Your task to perform on an android device: Open Reddit.com Image 0: 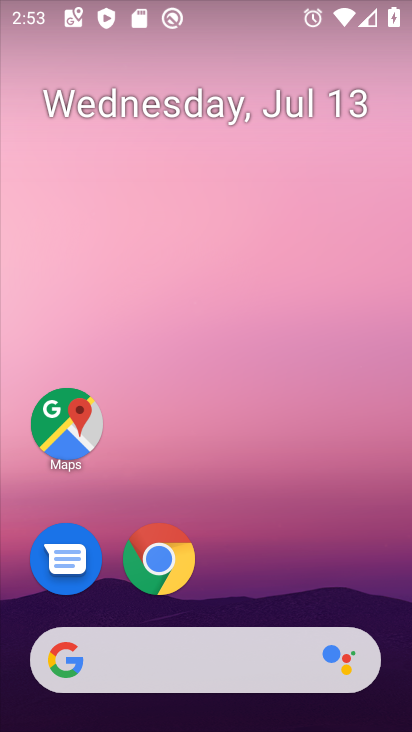
Step 0: drag from (358, 583) to (358, 165)
Your task to perform on an android device: Open Reddit.com Image 1: 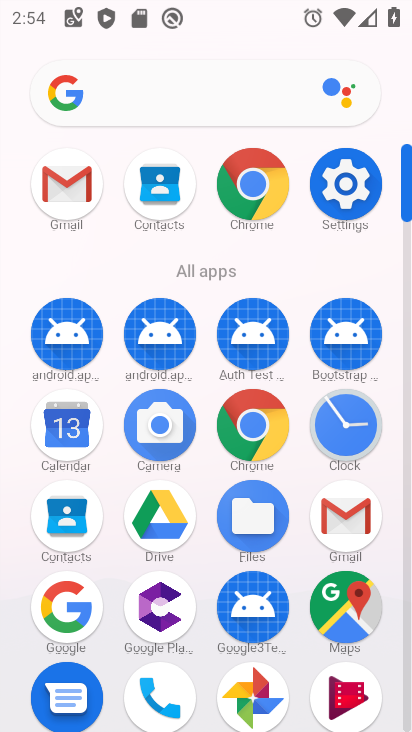
Step 1: click (251, 427)
Your task to perform on an android device: Open Reddit.com Image 2: 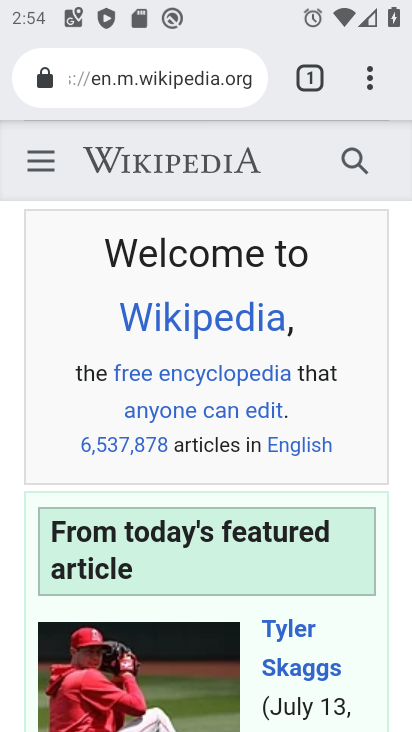
Step 2: click (177, 80)
Your task to perform on an android device: Open Reddit.com Image 3: 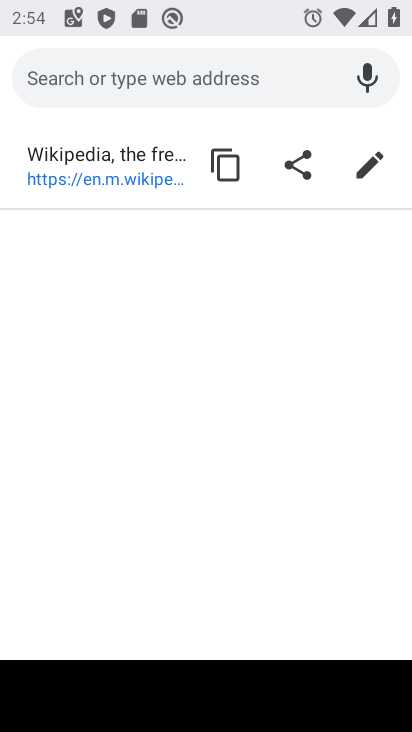
Step 3: type "reddit.com"
Your task to perform on an android device: Open Reddit.com Image 4: 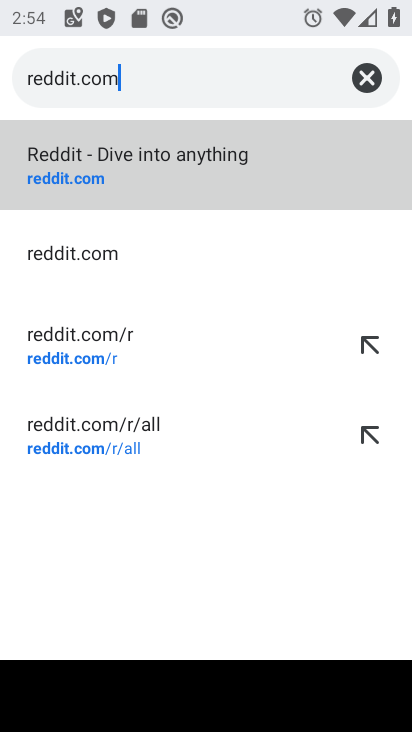
Step 4: click (175, 172)
Your task to perform on an android device: Open Reddit.com Image 5: 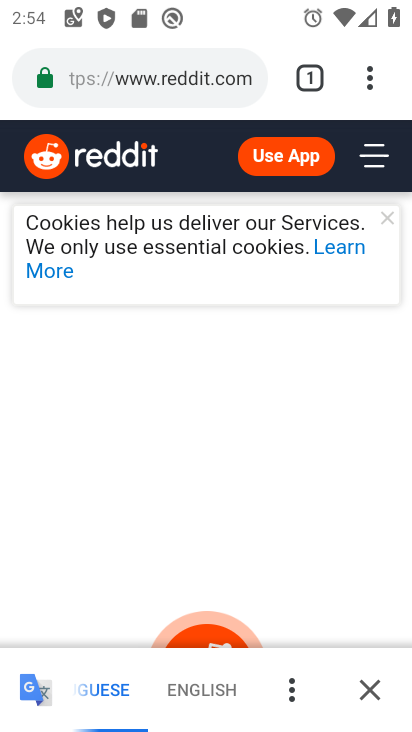
Step 5: task complete